Your task to perform on an android device: Go to Reddit.com Image 0: 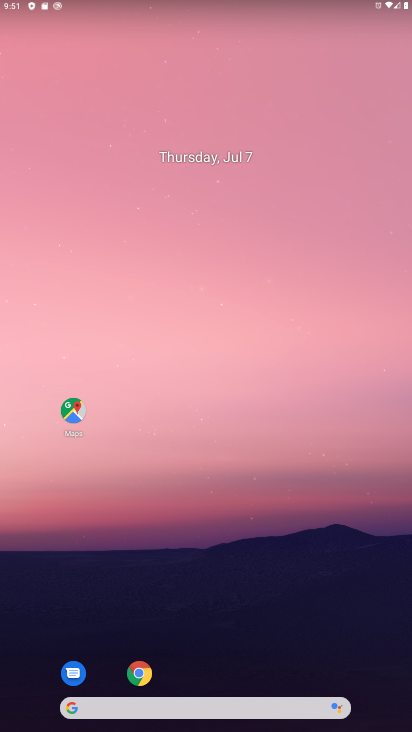
Step 0: click (147, 674)
Your task to perform on an android device: Go to Reddit.com Image 1: 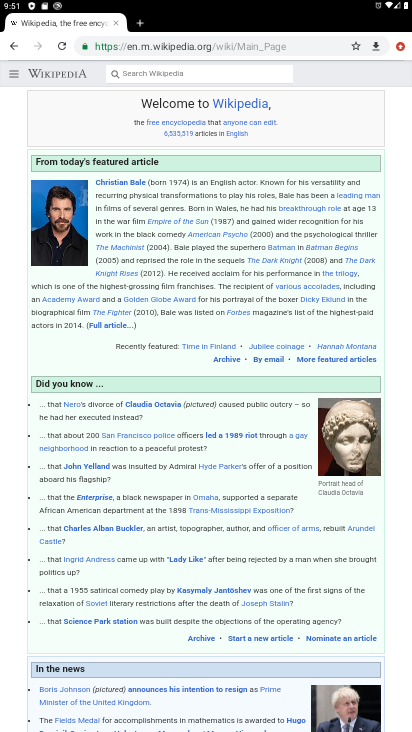
Step 1: click (169, 45)
Your task to perform on an android device: Go to Reddit.com Image 2: 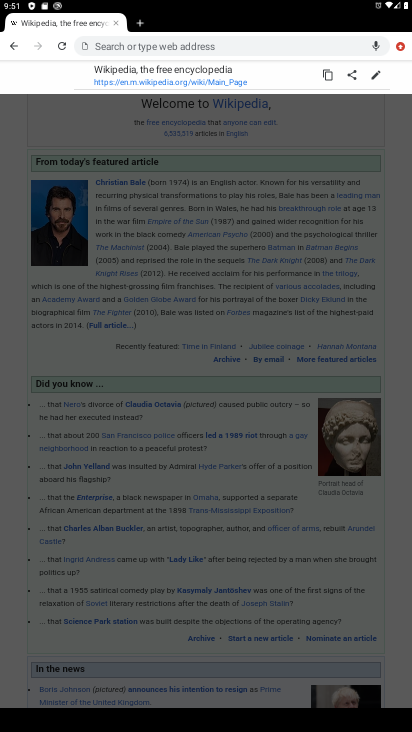
Step 2: type "Reddit.com"
Your task to perform on an android device: Go to Reddit.com Image 3: 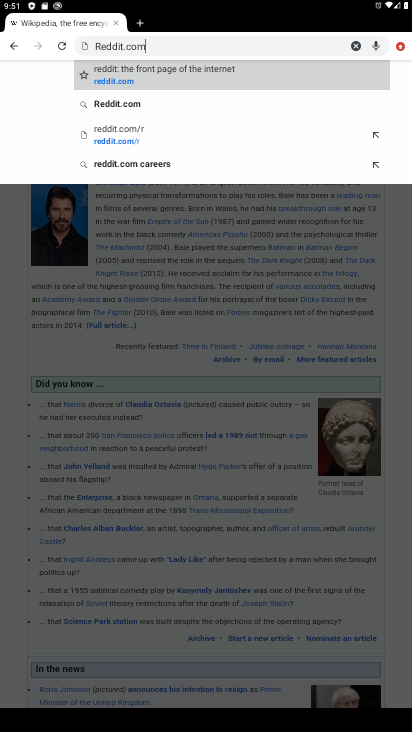
Step 3: click (140, 81)
Your task to perform on an android device: Go to Reddit.com Image 4: 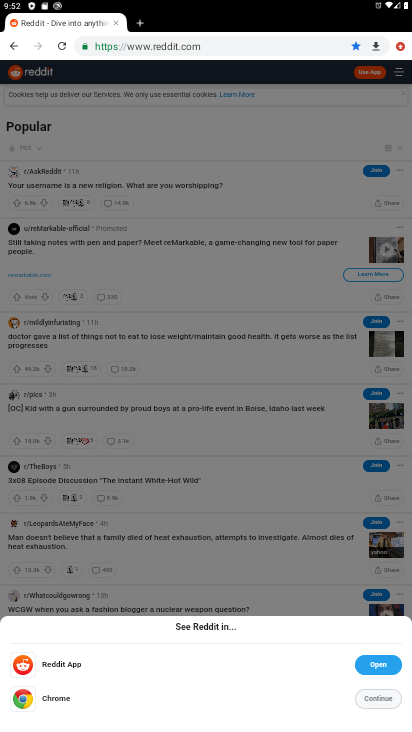
Step 4: task complete